Your task to perform on an android device: Show me productivity apps on the Play Store Image 0: 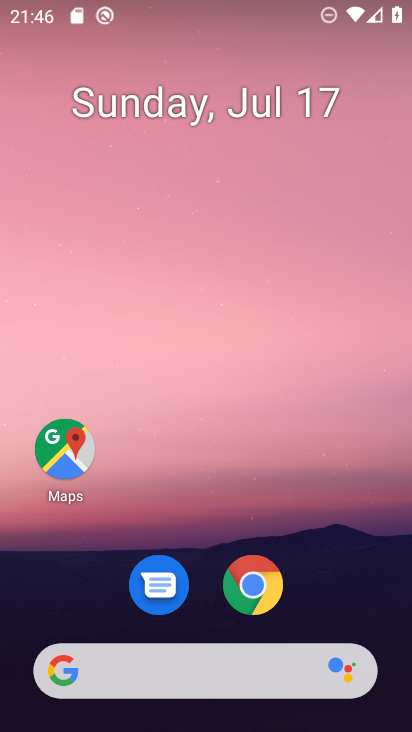
Step 0: press home button
Your task to perform on an android device: Show me productivity apps on the Play Store Image 1: 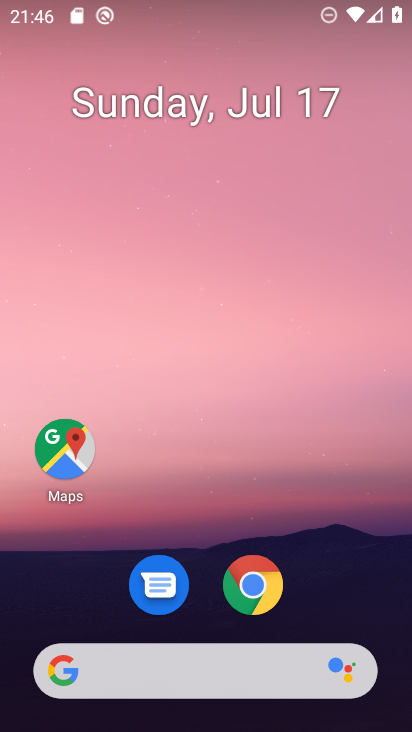
Step 1: drag from (188, 665) to (202, 129)
Your task to perform on an android device: Show me productivity apps on the Play Store Image 2: 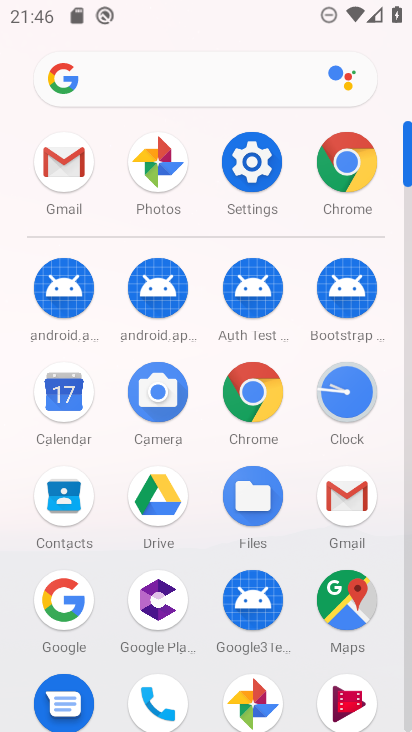
Step 2: drag from (117, 633) to (212, 208)
Your task to perform on an android device: Show me productivity apps on the Play Store Image 3: 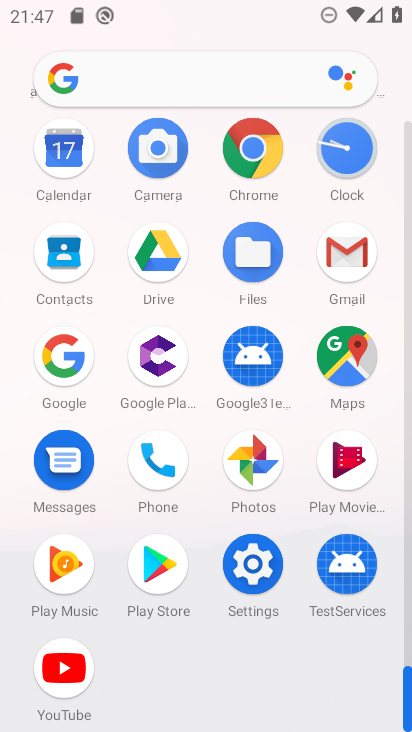
Step 3: click (159, 568)
Your task to perform on an android device: Show me productivity apps on the Play Store Image 4: 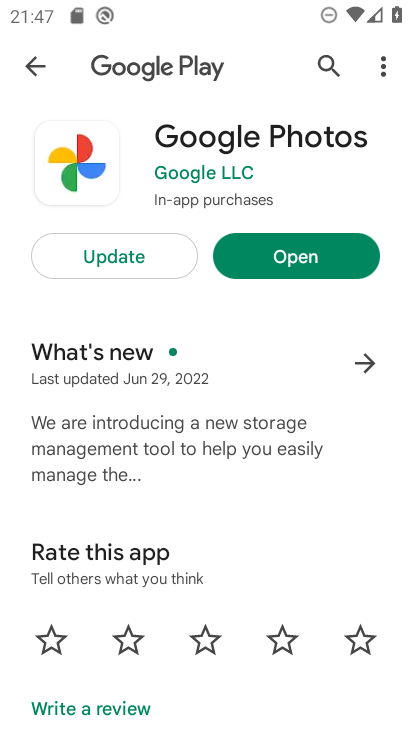
Step 4: click (32, 60)
Your task to perform on an android device: Show me productivity apps on the Play Store Image 5: 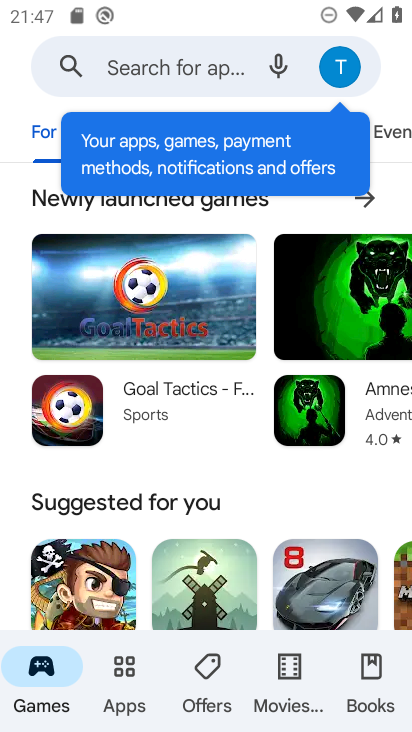
Step 5: click (124, 671)
Your task to perform on an android device: Show me productivity apps on the Play Store Image 6: 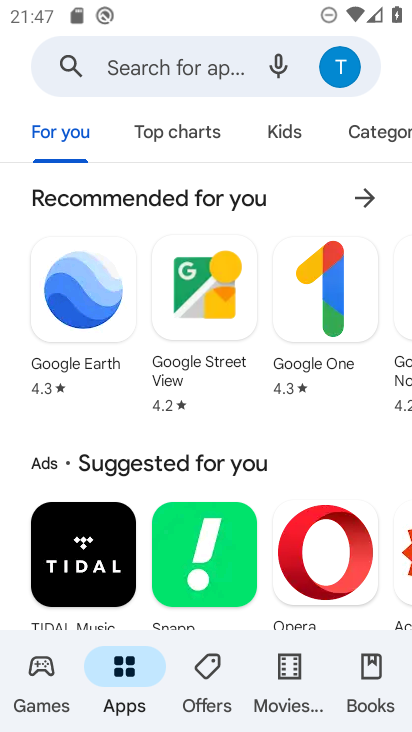
Step 6: drag from (336, 140) to (125, 149)
Your task to perform on an android device: Show me productivity apps on the Play Store Image 7: 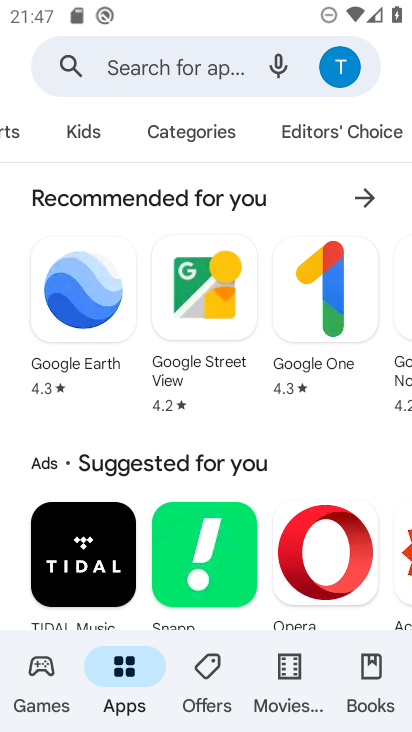
Step 7: click (218, 136)
Your task to perform on an android device: Show me productivity apps on the Play Store Image 8: 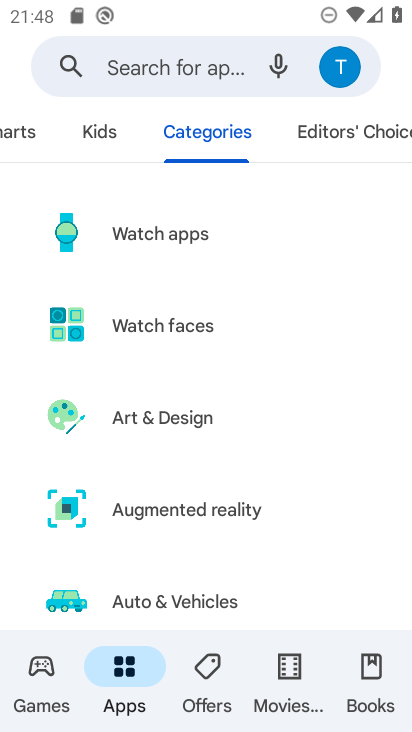
Step 8: drag from (254, 572) to (221, 156)
Your task to perform on an android device: Show me productivity apps on the Play Store Image 9: 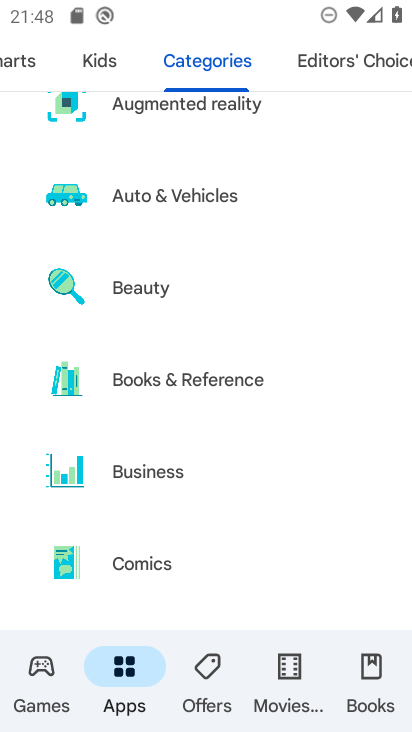
Step 9: drag from (211, 566) to (276, 141)
Your task to perform on an android device: Show me productivity apps on the Play Store Image 10: 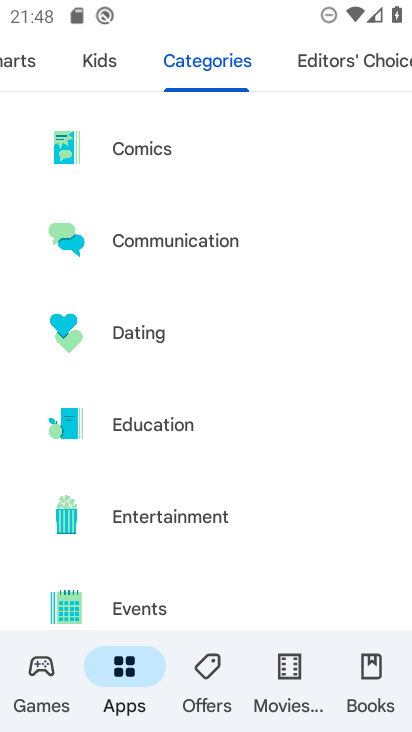
Step 10: drag from (238, 551) to (272, 215)
Your task to perform on an android device: Show me productivity apps on the Play Store Image 11: 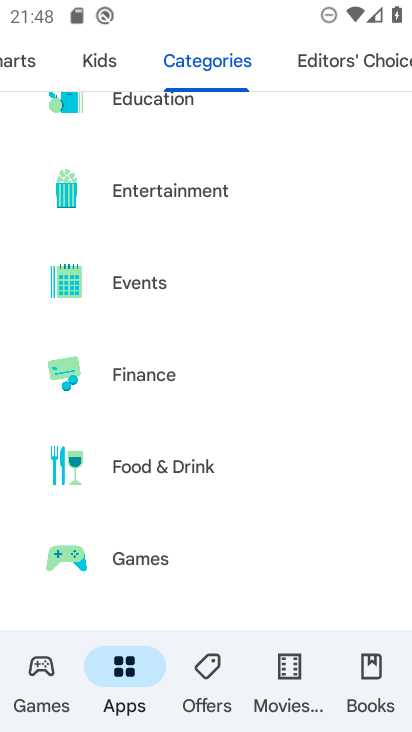
Step 11: drag from (213, 573) to (276, 125)
Your task to perform on an android device: Show me productivity apps on the Play Store Image 12: 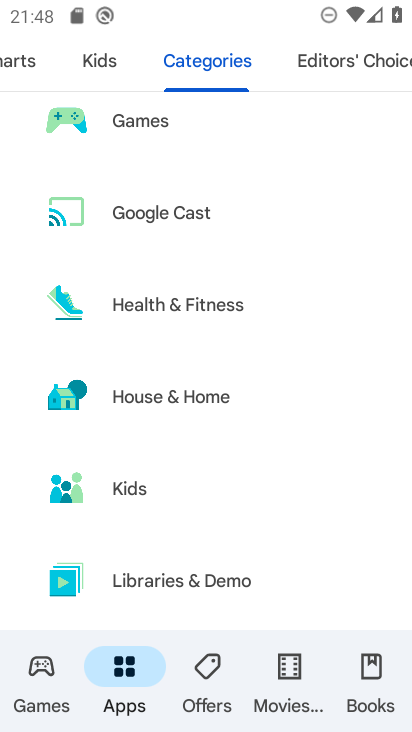
Step 12: drag from (172, 544) to (258, 153)
Your task to perform on an android device: Show me productivity apps on the Play Store Image 13: 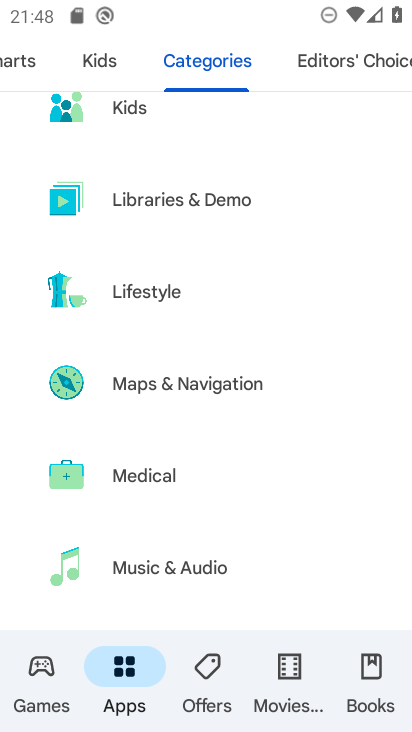
Step 13: drag from (211, 526) to (315, 49)
Your task to perform on an android device: Show me productivity apps on the Play Store Image 14: 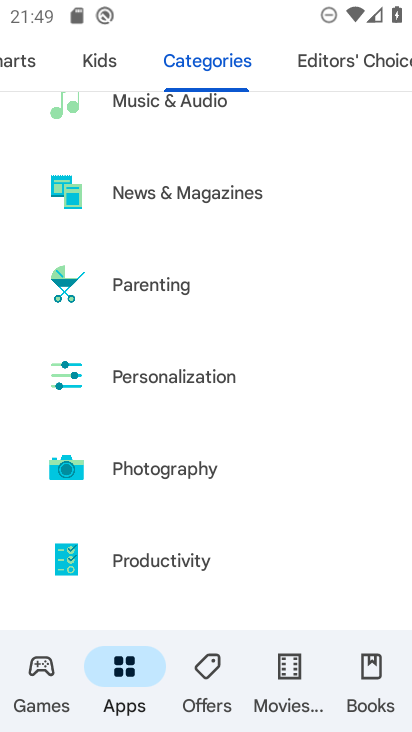
Step 14: click (172, 557)
Your task to perform on an android device: Show me productivity apps on the Play Store Image 15: 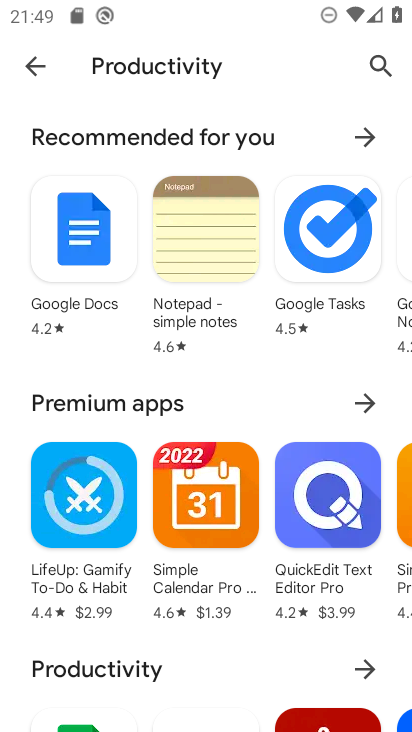
Step 15: task complete